Your task to perform on an android device: Check the news Image 0: 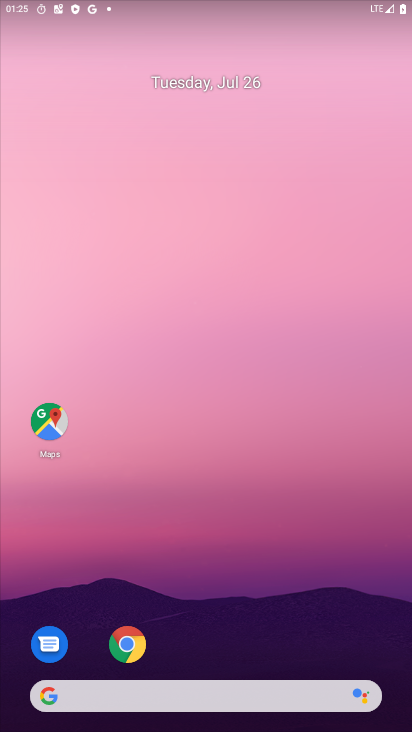
Step 0: click (145, 693)
Your task to perform on an android device: Check the news Image 1: 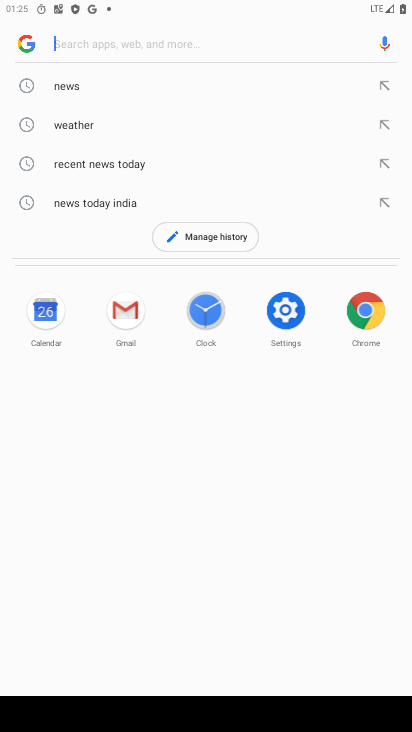
Step 1: click (70, 92)
Your task to perform on an android device: Check the news Image 2: 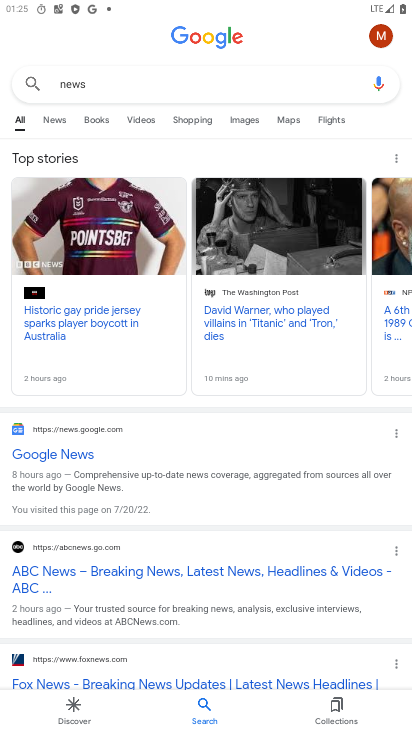
Step 2: click (60, 127)
Your task to perform on an android device: Check the news Image 3: 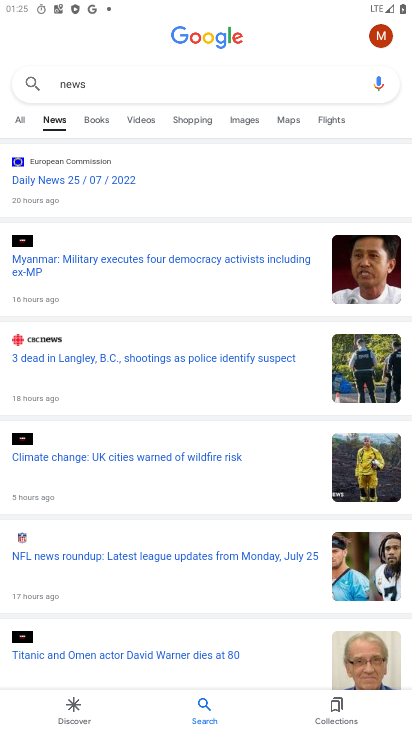
Step 3: task complete